Your task to perform on an android device: Show me the alarms in the clock app Image 0: 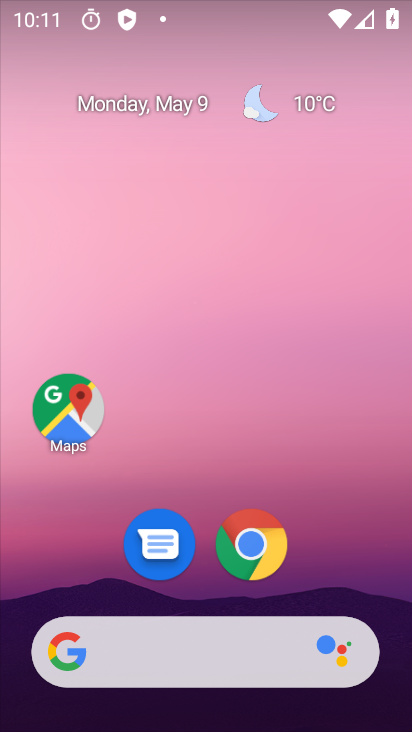
Step 0: drag from (402, 593) to (385, 154)
Your task to perform on an android device: Show me the alarms in the clock app Image 1: 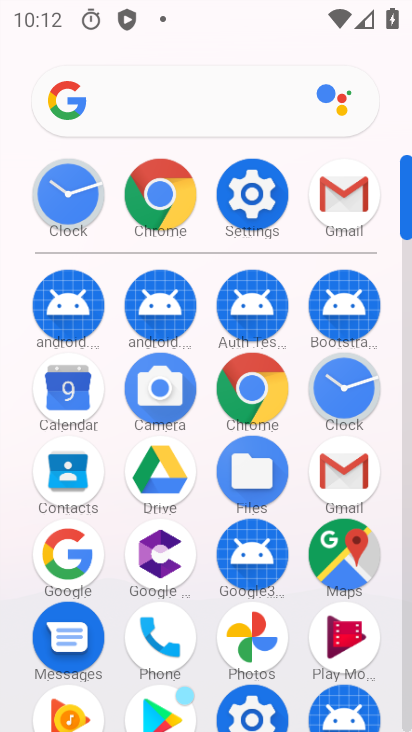
Step 1: click (341, 404)
Your task to perform on an android device: Show me the alarms in the clock app Image 2: 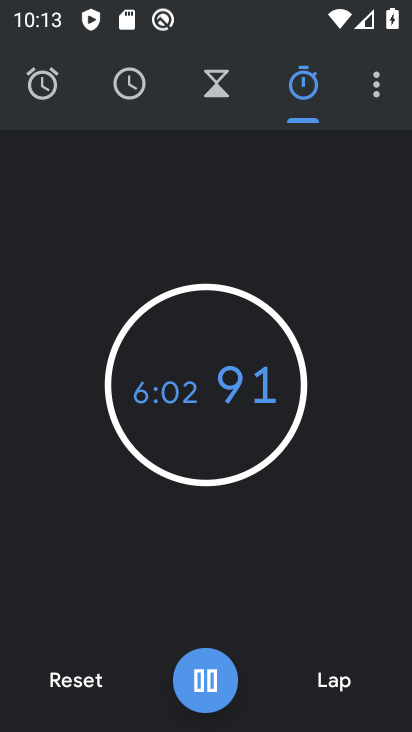
Step 2: click (376, 84)
Your task to perform on an android device: Show me the alarms in the clock app Image 3: 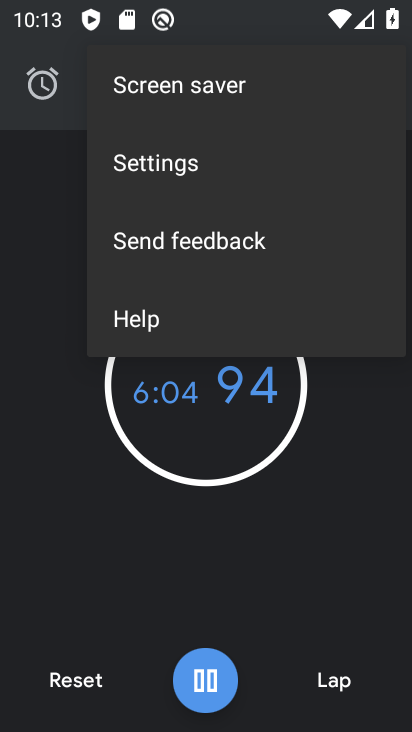
Step 3: click (40, 181)
Your task to perform on an android device: Show me the alarms in the clock app Image 4: 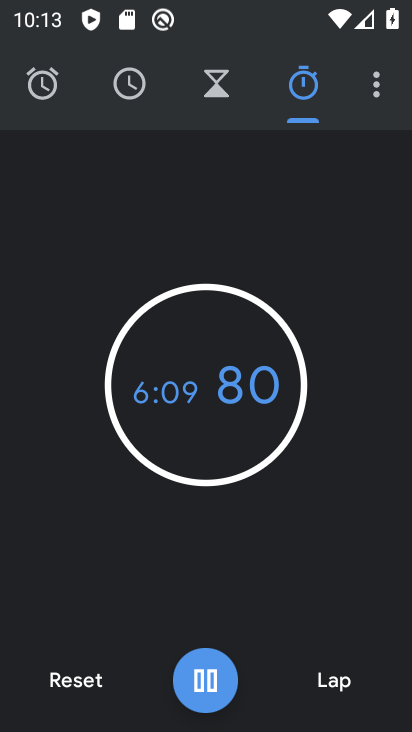
Step 4: click (47, 79)
Your task to perform on an android device: Show me the alarms in the clock app Image 5: 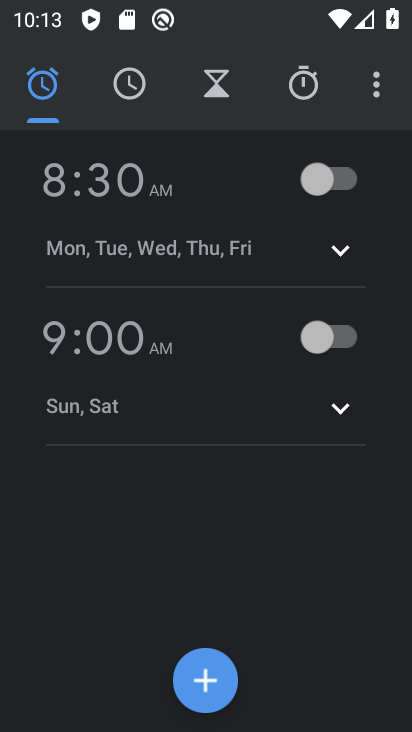
Step 5: task complete